Your task to perform on an android device: open a bookmark in the chrome app Image 0: 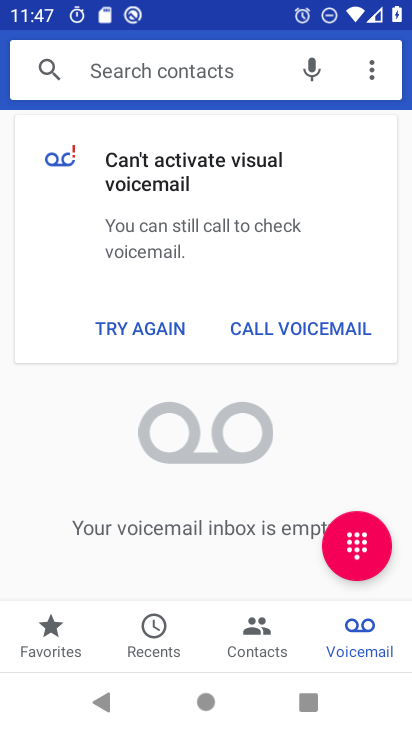
Step 0: press home button
Your task to perform on an android device: open a bookmark in the chrome app Image 1: 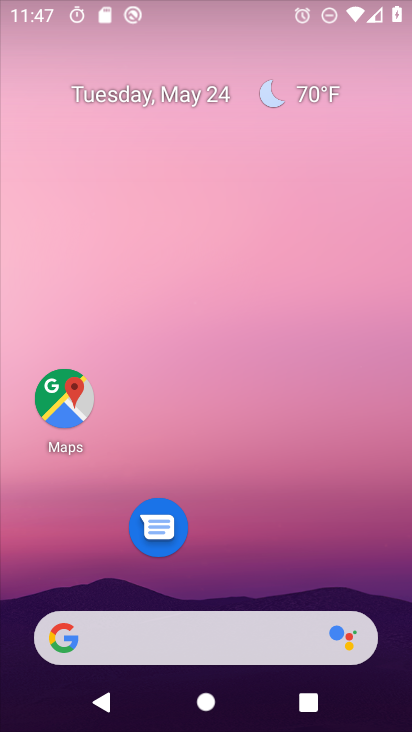
Step 1: drag from (243, 530) to (294, 89)
Your task to perform on an android device: open a bookmark in the chrome app Image 2: 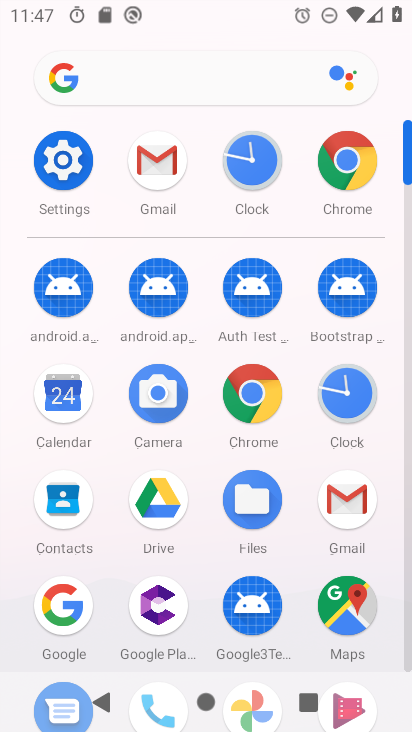
Step 2: click (350, 161)
Your task to perform on an android device: open a bookmark in the chrome app Image 3: 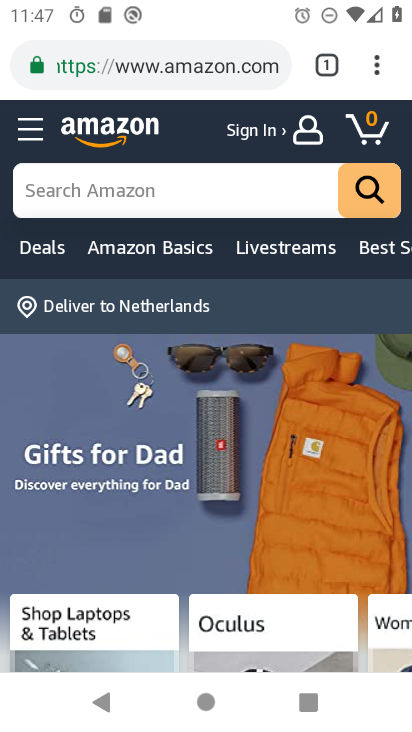
Step 3: click (373, 60)
Your task to perform on an android device: open a bookmark in the chrome app Image 4: 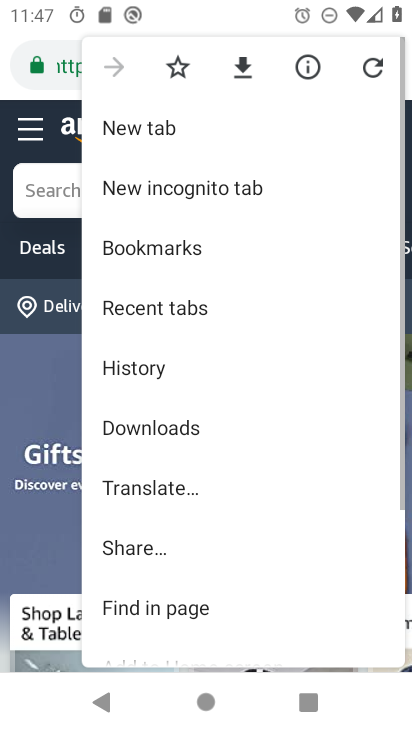
Step 4: drag from (305, 491) to (317, 99)
Your task to perform on an android device: open a bookmark in the chrome app Image 5: 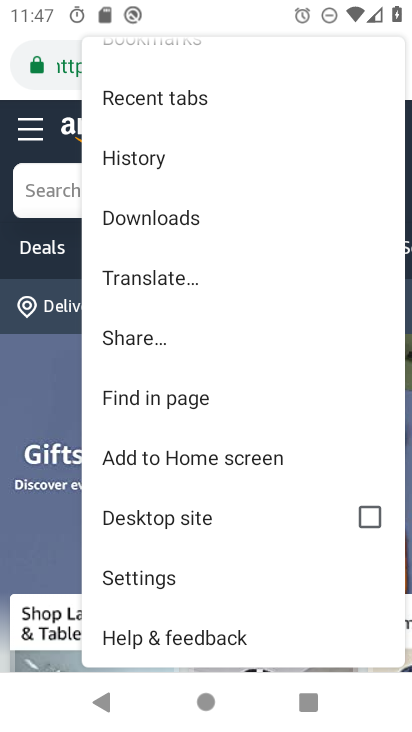
Step 5: click (165, 581)
Your task to perform on an android device: open a bookmark in the chrome app Image 6: 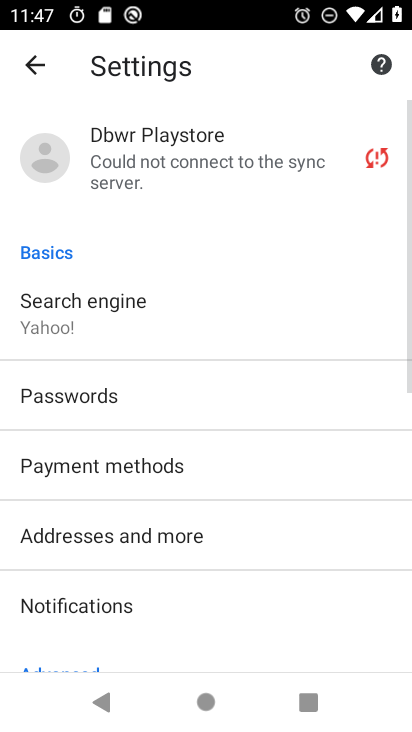
Step 6: press back button
Your task to perform on an android device: open a bookmark in the chrome app Image 7: 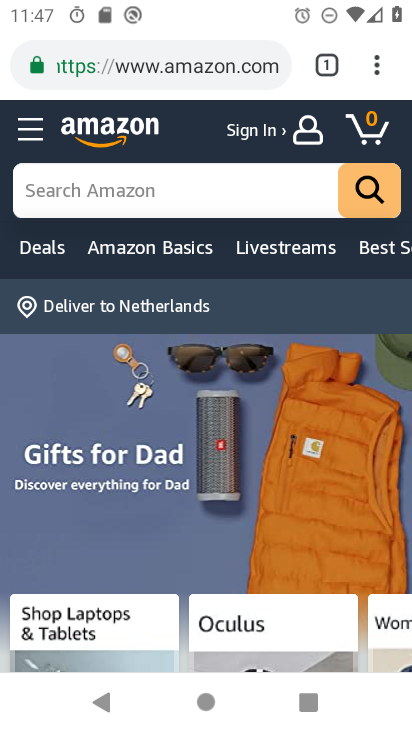
Step 7: click (371, 67)
Your task to perform on an android device: open a bookmark in the chrome app Image 8: 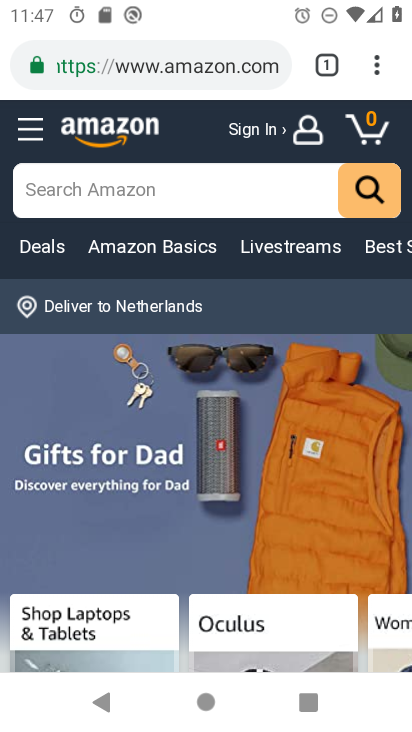
Step 8: click (371, 67)
Your task to perform on an android device: open a bookmark in the chrome app Image 9: 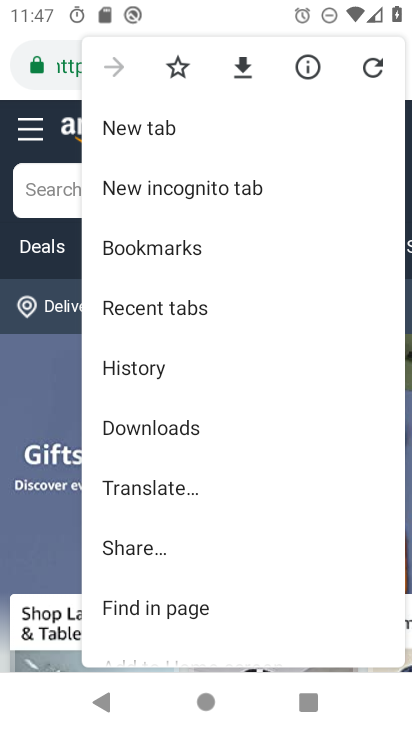
Step 9: click (169, 251)
Your task to perform on an android device: open a bookmark in the chrome app Image 10: 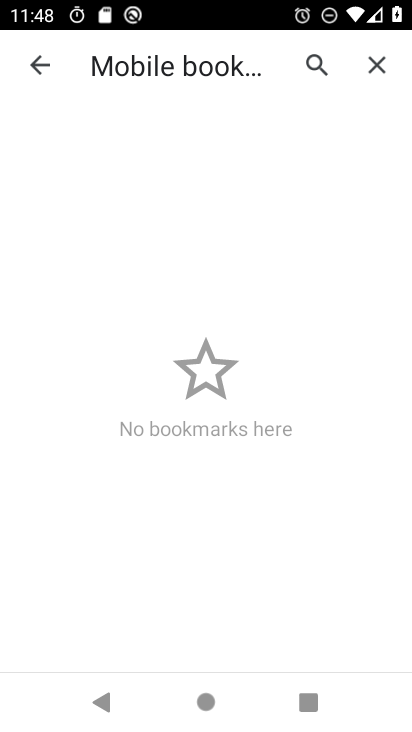
Step 10: task complete